Your task to perform on an android device: Turn on the flashlight Image 0: 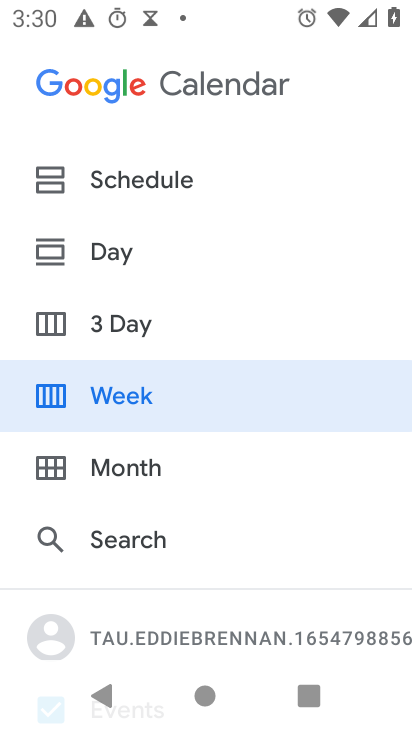
Step 0: press home button
Your task to perform on an android device: Turn on the flashlight Image 1: 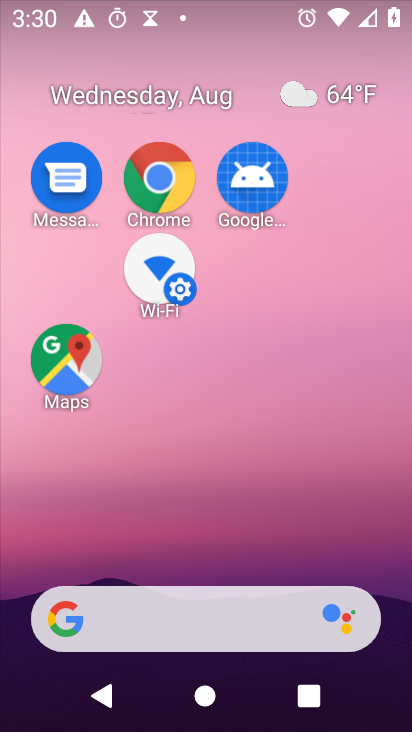
Step 1: task complete